Your task to perform on an android device: turn off translation in the chrome app Image 0: 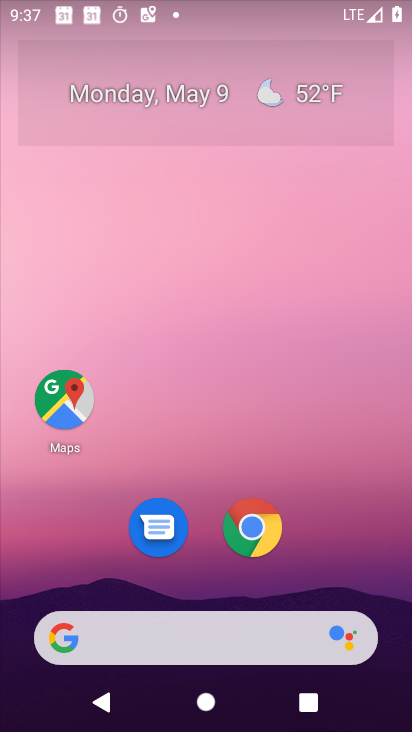
Step 0: drag from (365, 549) to (352, 184)
Your task to perform on an android device: turn off translation in the chrome app Image 1: 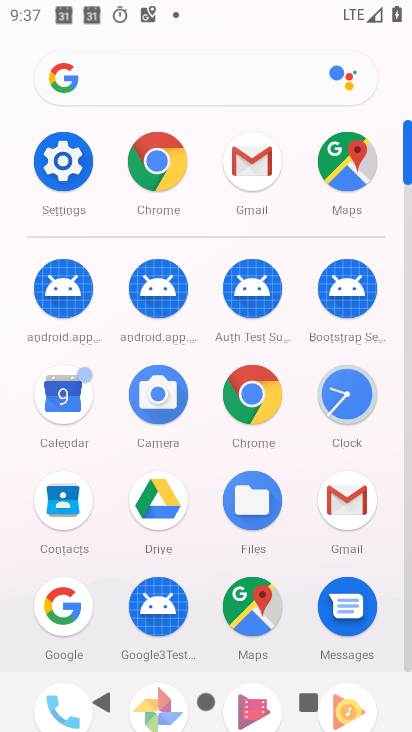
Step 1: click (259, 403)
Your task to perform on an android device: turn off translation in the chrome app Image 2: 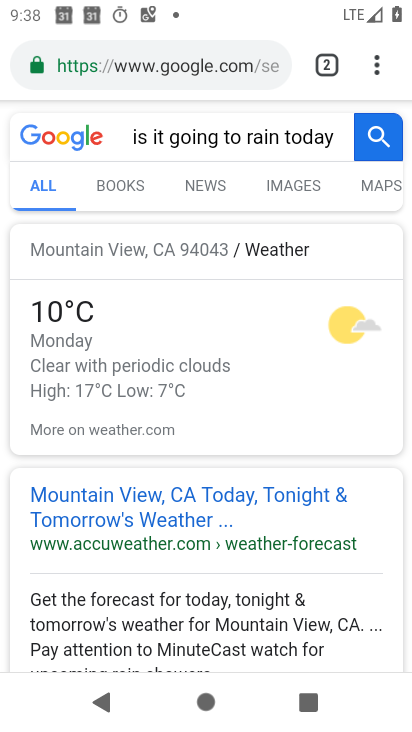
Step 2: drag from (376, 77) to (238, 570)
Your task to perform on an android device: turn off translation in the chrome app Image 3: 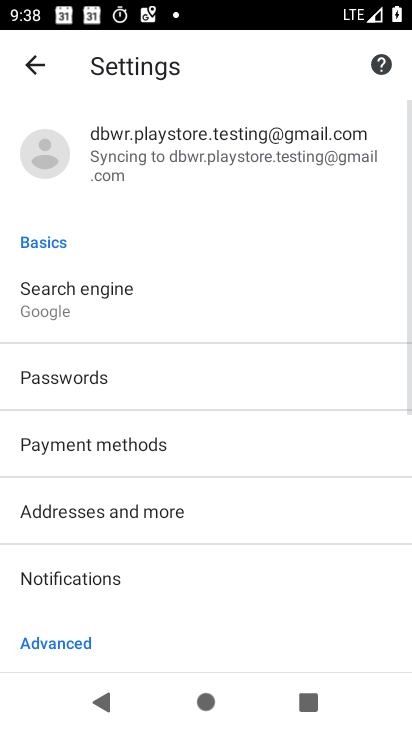
Step 3: drag from (233, 603) to (264, 252)
Your task to perform on an android device: turn off translation in the chrome app Image 4: 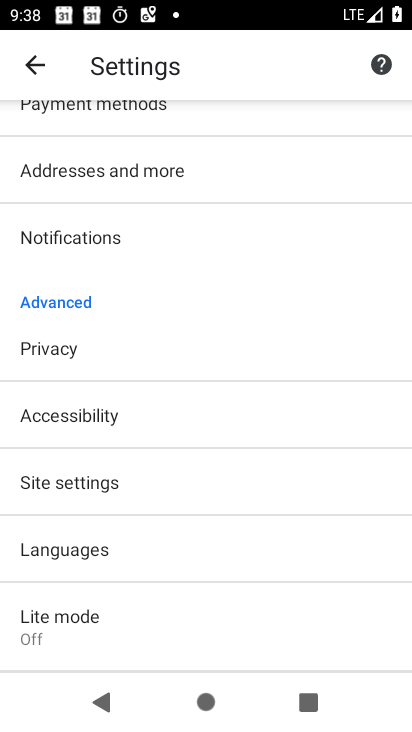
Step 4: click (178, 636)
Your task to perform on an android device: turn off translation in the chrome app Image 5: 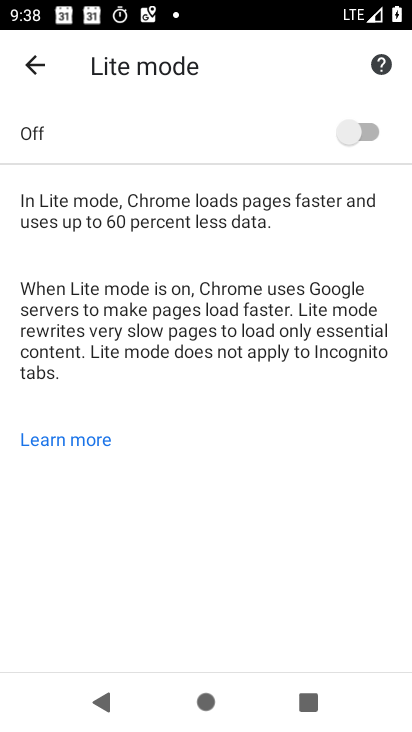
Step 5: task complete